Your task to perform on an android device: empty trash in google photos Image 0: 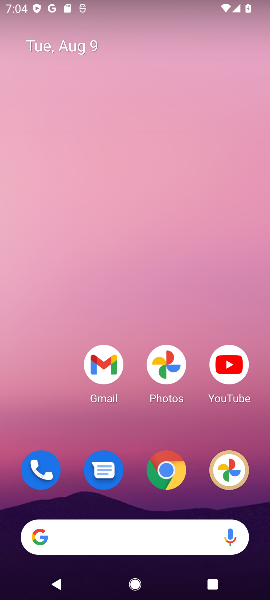
Step 0: click (177, 372)
Your task to perform on an android device: empty trash in google photos Image 1: 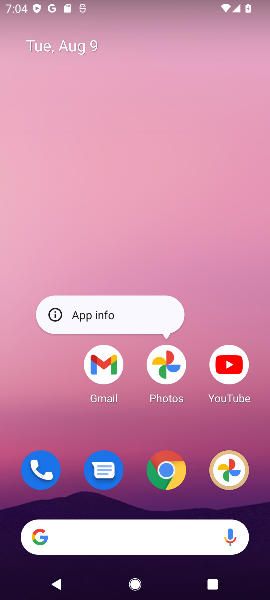
Step 1: click (177, 372)
Your task to perform on an android device: empty trash in google photos Image 2: 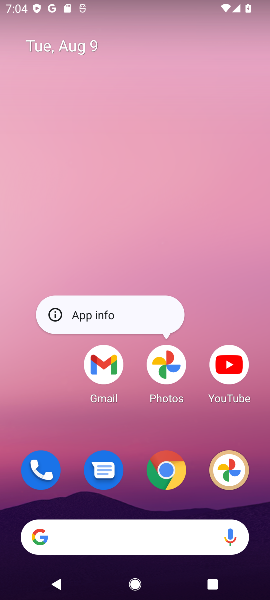
Step 2: click (177, 372)
Your task to perform on an android device: empty trash in google photos Image 3: 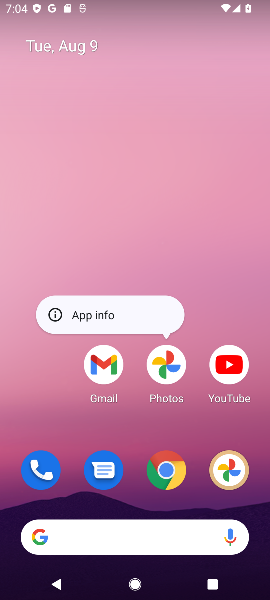
Step 3: click (177, 372)
Your task to perform on an android device: empty trash in google photos Image 4: 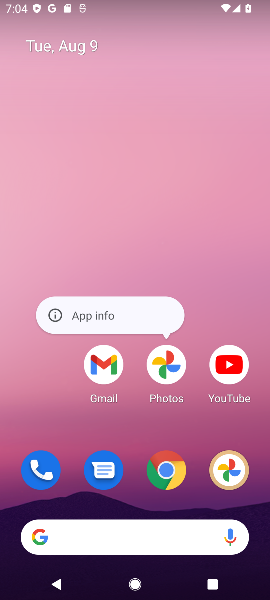
Step 4: click (177, 372)
Your task to perform on an android device: empty trash in google photos Image 5: 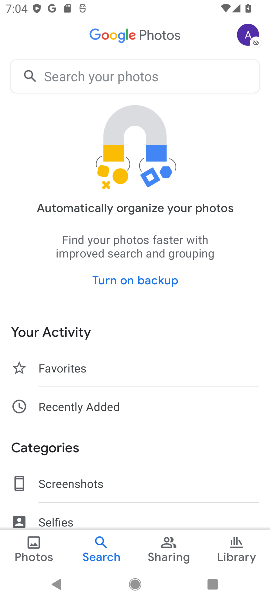
Step 5: drag from (163, 474) to (227, 5)
Your task to perform on an android device: empty trash in google photos Image 6: 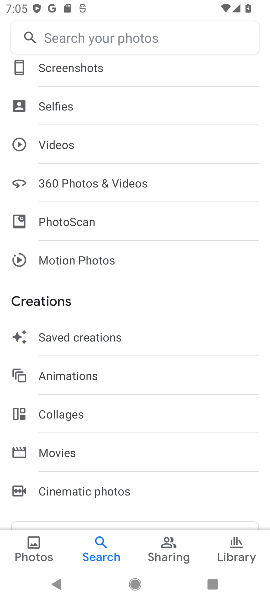
Step 6: drag from (172, 464) to (260, 116)
Your task to perform on an android device: empty trash in google photos Image 7: 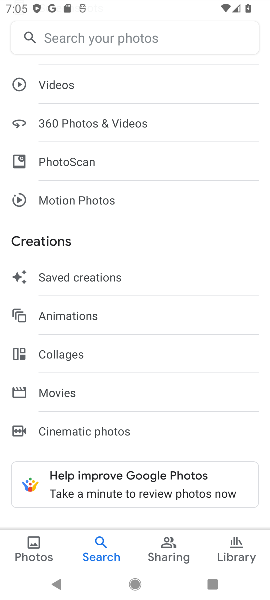
Step 7: drag from (228, 423) to (258, 152)
Your task to perform on an android device: empty trash in google photos Image 8: 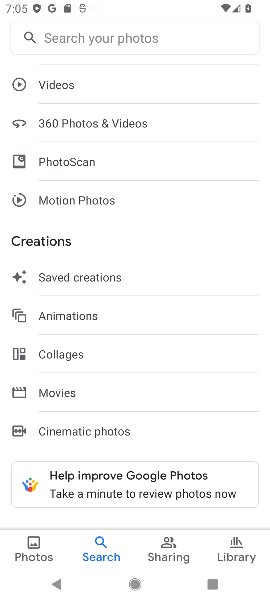
Step 8: drag from (192, 321) to (218, 84)
Your task to perform on an android device: empty trash in google photos Image 9: 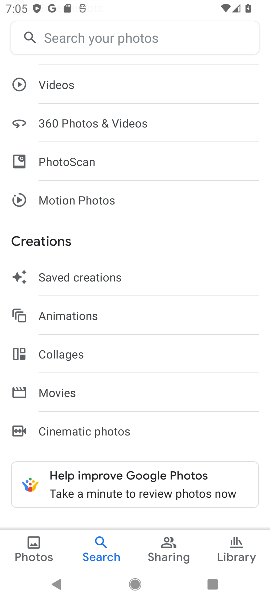
Step 9: drag from (219, 98) to (153, 581)
Your task to perform on an android device: empty trash in google photos Image 10: 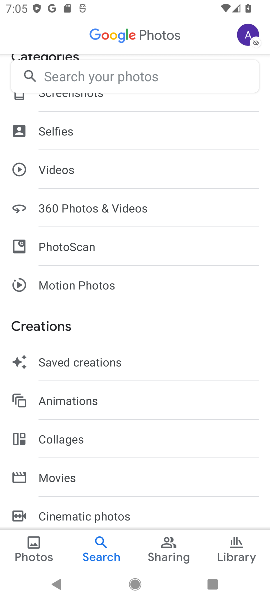
Step 10: drag from (127, 487) to (230, 31)
Your task to perform on an android device: empty trash in google photos Image 11: 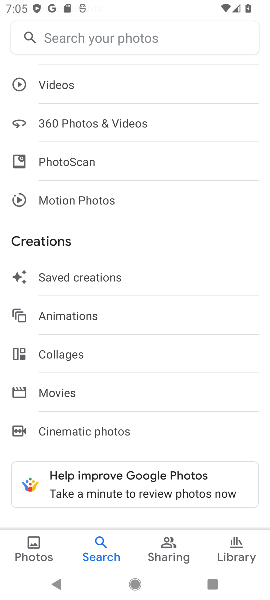
Step 11: drag from (188, 418) to (245, 26)
Your task to perform on an android device: empty trash in google photos Image 12: 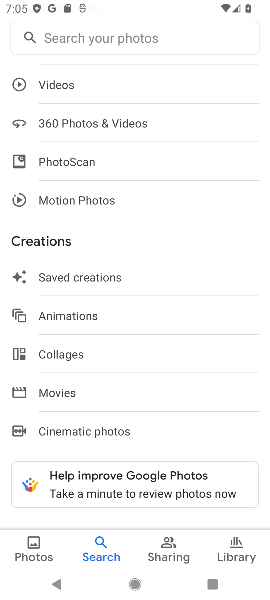
Step 12: drag from (207, 136) to (137, 589)
Your task to perform on an android device: empty trash in google photos Image 13: 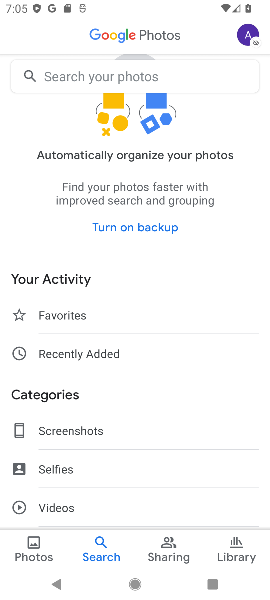
Step 13: drag from (152, 300) to (177, 56)
Your task to perform on an android device: empty trash in google photos Image 14: 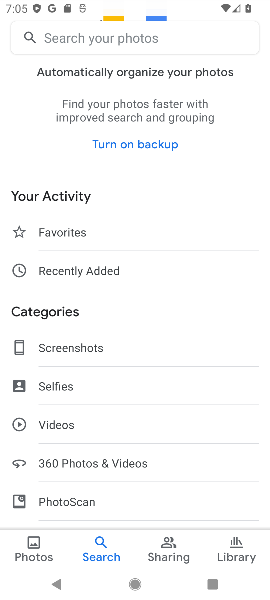
Step 14: click (224, 549)
Your task to perform on an android device: empty trash in google photos Image 15: 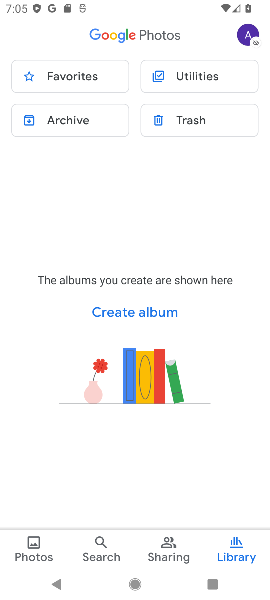
Step 15: click (192, 124)
Your task to perform on an android device: empty trash in google photos Image 16: 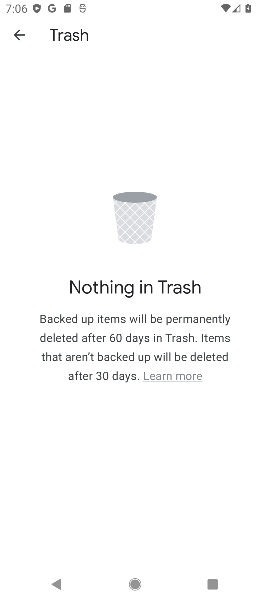
Step 16: click (23, 34)
Your task to perform on an android device: empty trash in google photos Image 17: 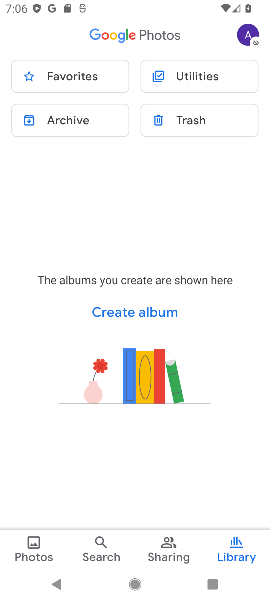
Step 17: click (213, 115)
Your task to perform on an android device: empty trash in google photos Image 18: 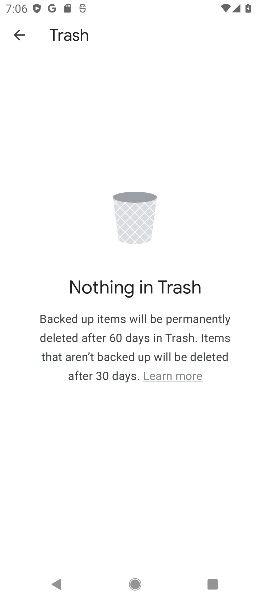
Step 18: task complete